Your task to perform on an android device: Check the news Image 0: 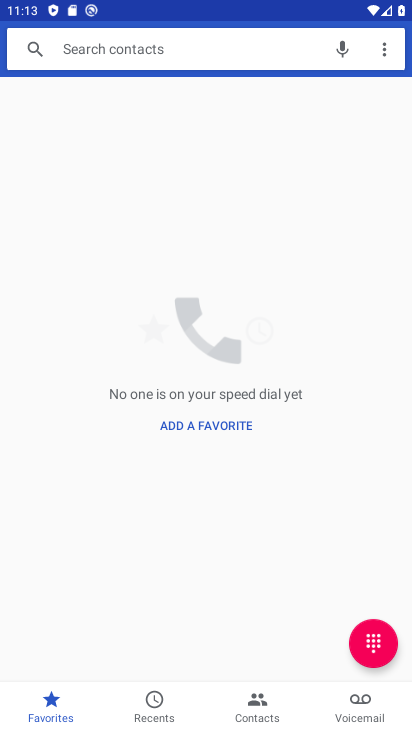
Step 0: press home button
Your task to perform on an android device: Check the news Image 1: 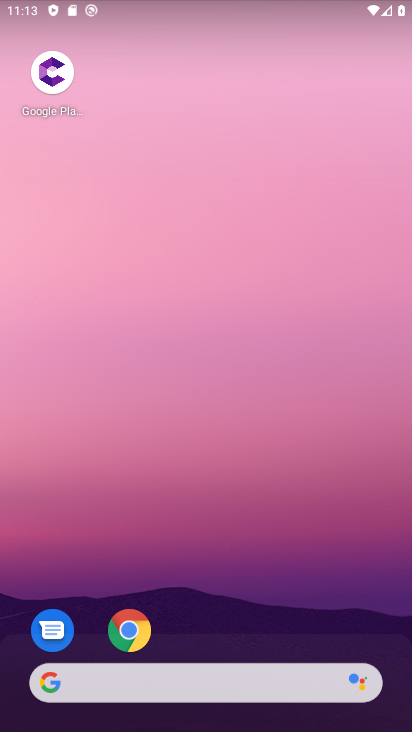
Step 1: click (152, 697)
Your task to perform on an android device: Check the news Image 2: 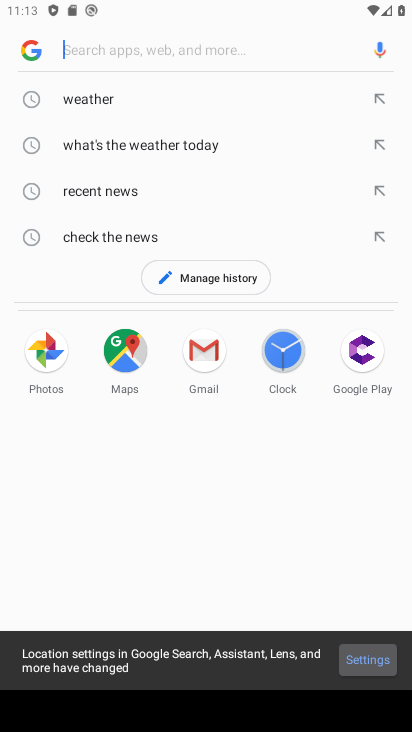
Step 2: click (18, 58)
Your task to perform on an android device: Check the news Image 3: 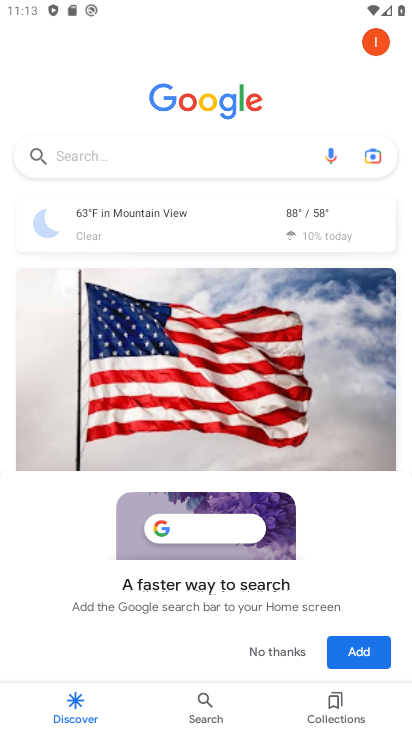
Step 3: task complete